Your task to perform on an android device: Go to Yahoo.com Image 0: 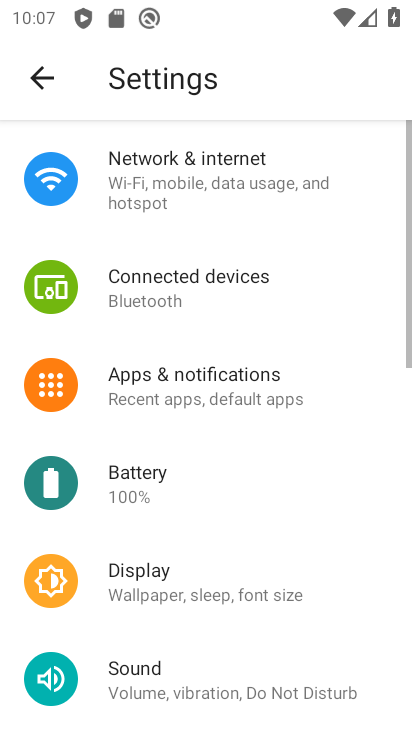
Step 0: press back button
Your task to perform on an android device: Go to Yahoo.com Image 1: 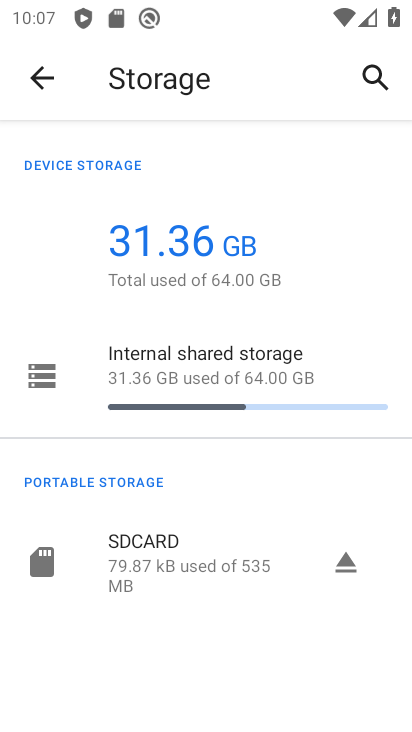
Step 1: press back button
Your task to perform on an android device: Go to Yahoo.com Image 2: 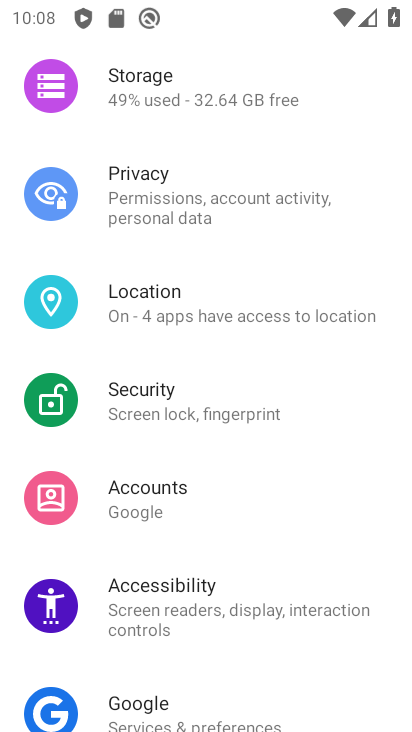
Step 2: press back button
Your task to perform on an android device: Go to Yahoo.com Image 3: 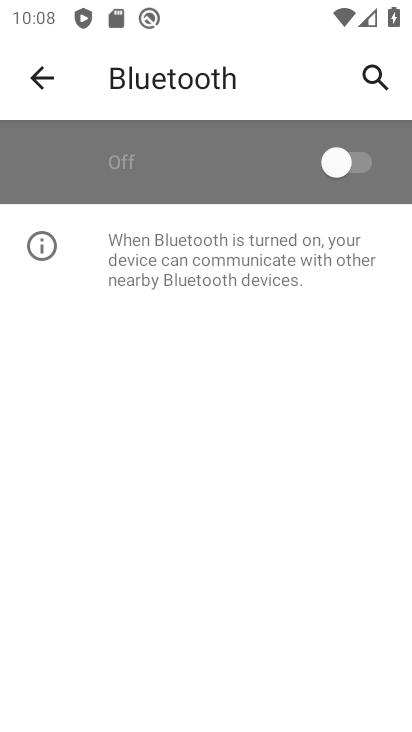
Step 3: press back button
Your task to perform on an android device: Go to Yahoo.com Image 4: 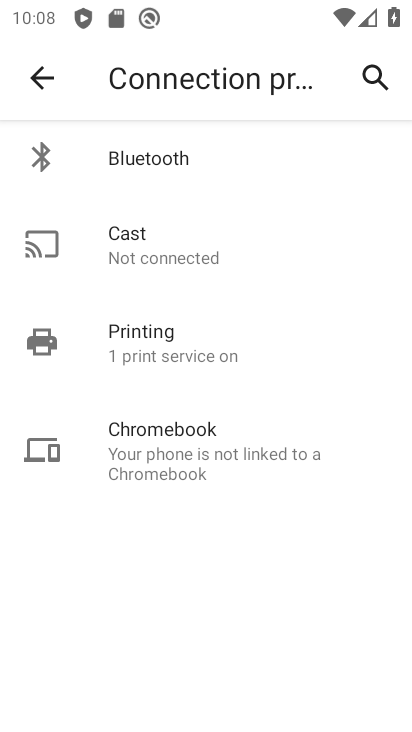
Step 4: press back button
Your task to perform on an android device: Go to Yahoo.com Image 5: 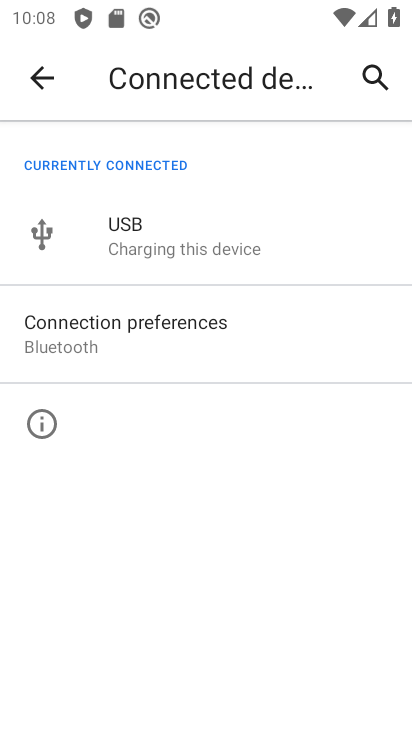
Step 5: press back button
Your task to perform on an android device: Go to Yahoo.com Image 6: 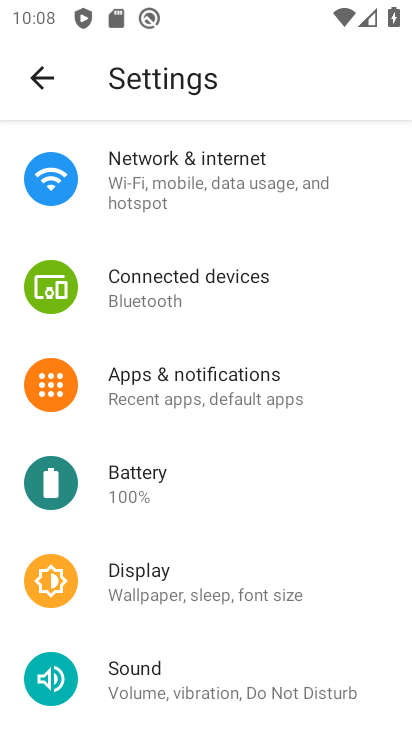
Step 6: press back button
Your task to perform on an android device: Go to Yahoo.com Image 7: 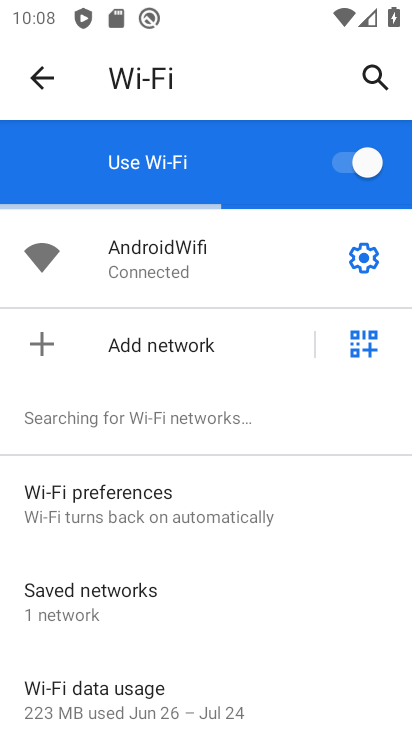
Step 7: press home button
Your task to perform on an android device: Go to Yahoo.com Image 8: 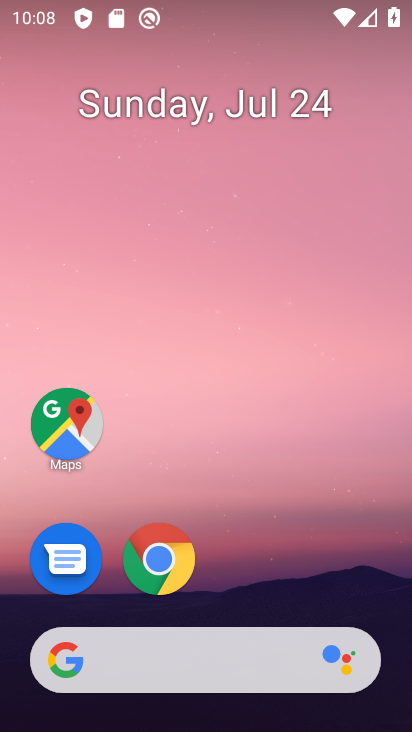
Step 8: click (180, 554)
Your task to perform on an android device: Go to Yahoo.com Image 9: 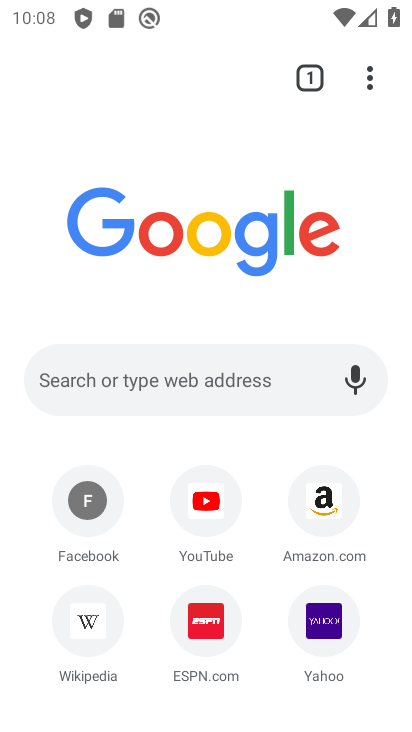
Step 9: click (348, 627)
Your task to perform on an android device: Go to Yahoo.com Image 10: 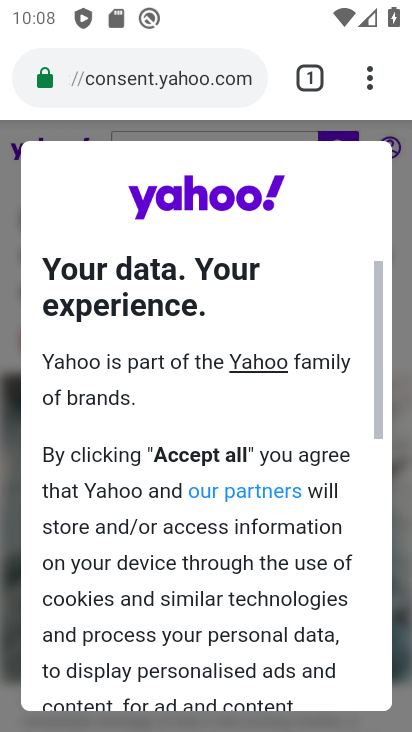
Step 10: task complete